Your task to perform on an android device: Open Chrome and go to settings Image 0: 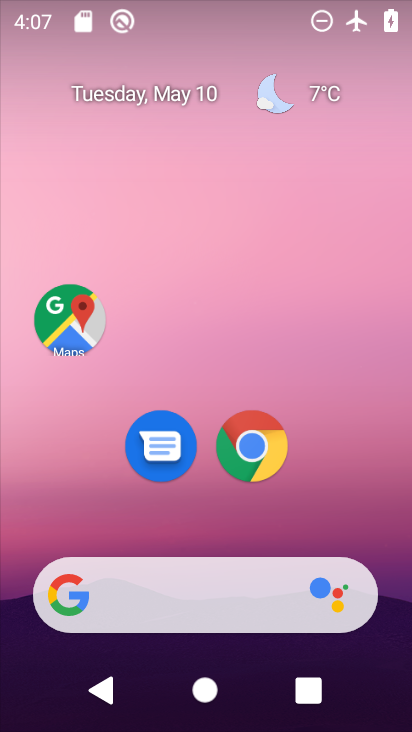
Step 0: click (251, 439)
Your task to perform on an android device: Open Chrome and go to settings Image 1: 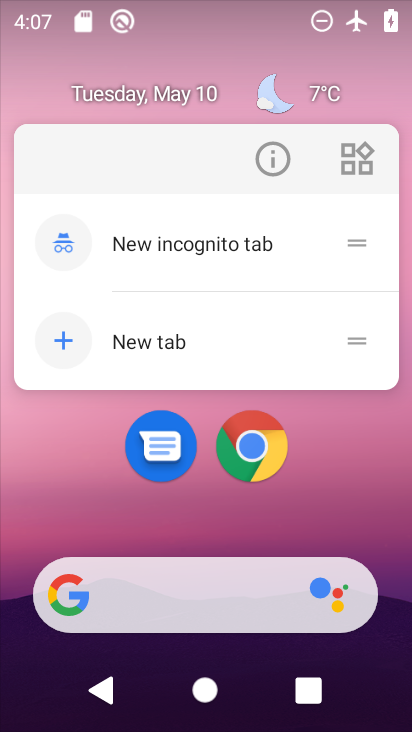
Step 1: click (244, 457)
Your task to perform on an android device: Open Chrome and go to settings Image 2: 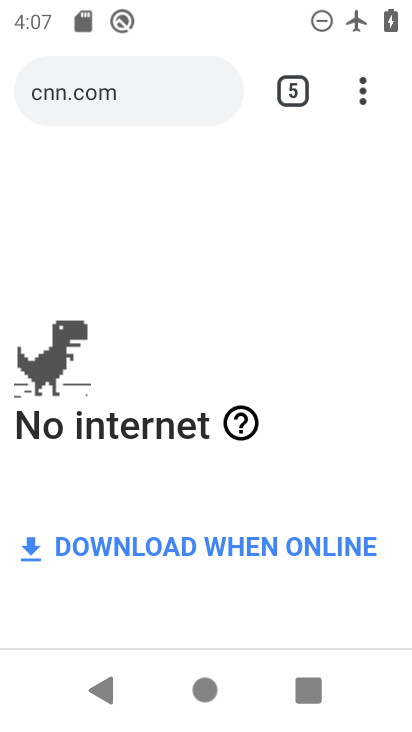
Step 2: click (358, 71)
Your task to perform on an android device: Open Chrome and go to settings Image 3: 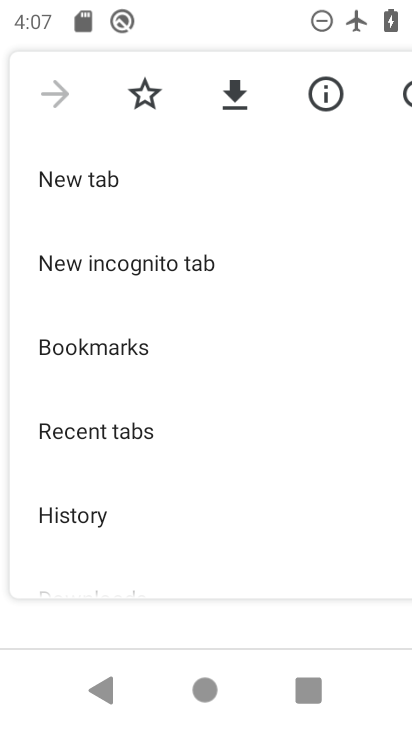
Step 3: drag from (268, 495) to (226, 56)
Your task to perform on an android device: Open Chrome and go to settings Image 4: 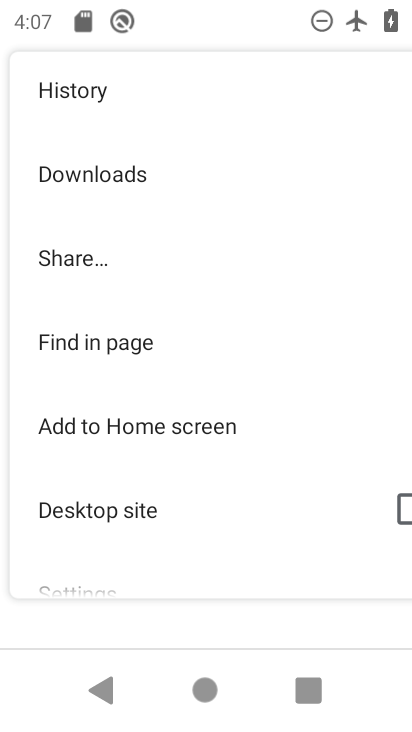
Step 4: drag from (162, 487) to (186, 88)
Your task to perform on an android device: Open Chrome and go to settings Image 5: 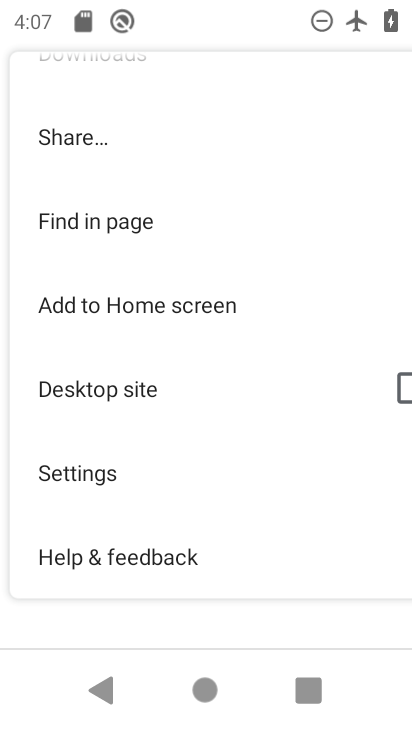
Step 5: click (126, 470)
Your task to perform on an android device: Open Chrome and go to settings Image 6: 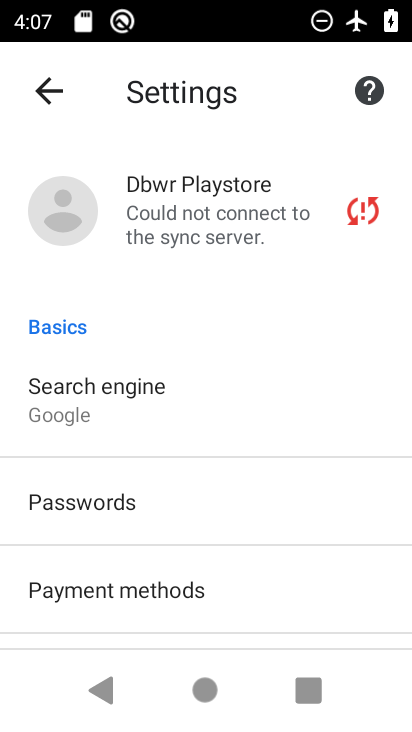
Step 6: task complete